Your task to perform on an android device: refresh tabs in the chrome app Image 0: 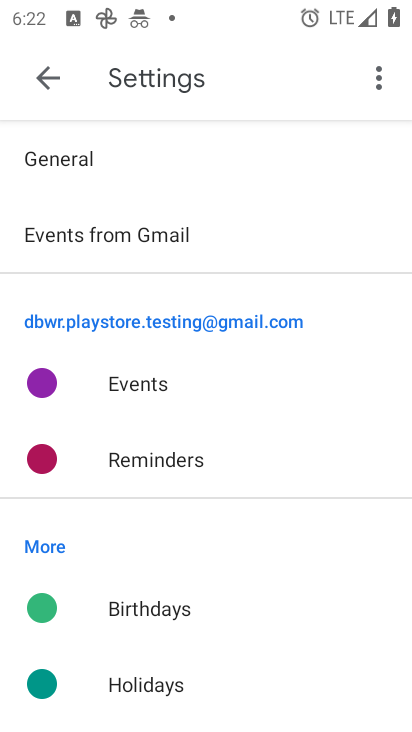
Step 0: press home button
Your task to perform on an android device: refresh tabs in the chrome app Image 1: 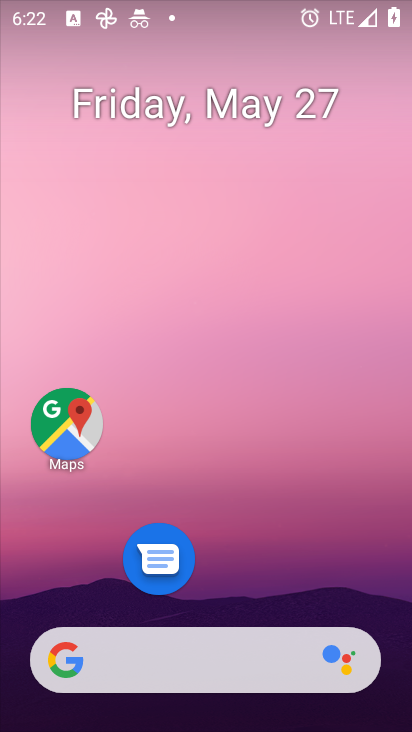
Step 1: drag from (295, 698) to (348, 124)
Your task to perform on an android device: refresh tabs in the chrome app Image 2: 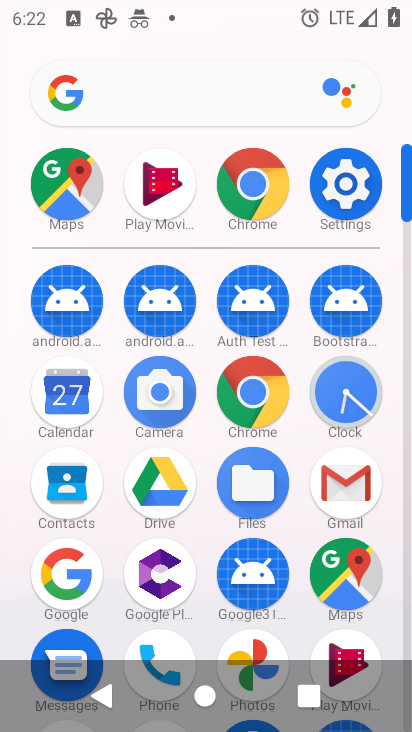
Step 2: click (278, 381)
Your task to perform on an android device: refresh tabs in the chrome app Image 3: 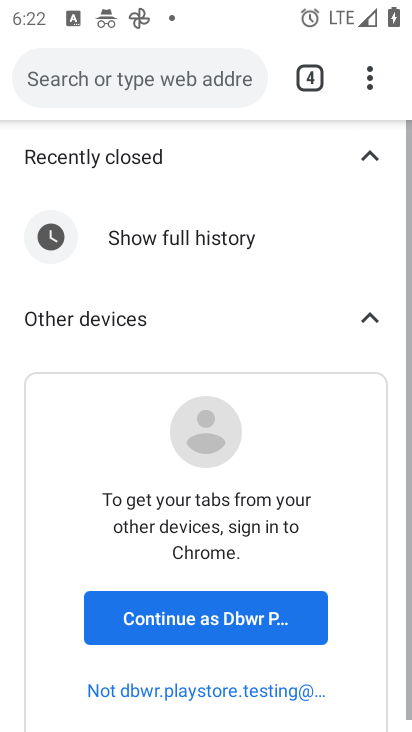
Step 3: click (376, 82)
Your task to perform on an android device: refresh tabs in the chrome app Image 4: 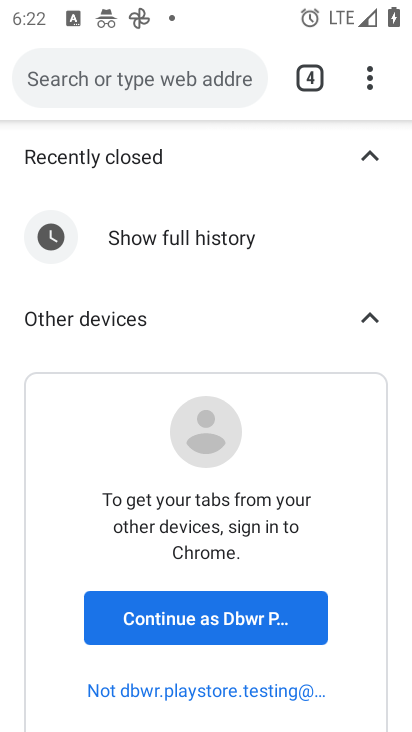
Step 4: task complete